Your task to perform on an android device: set the timer Image 0: 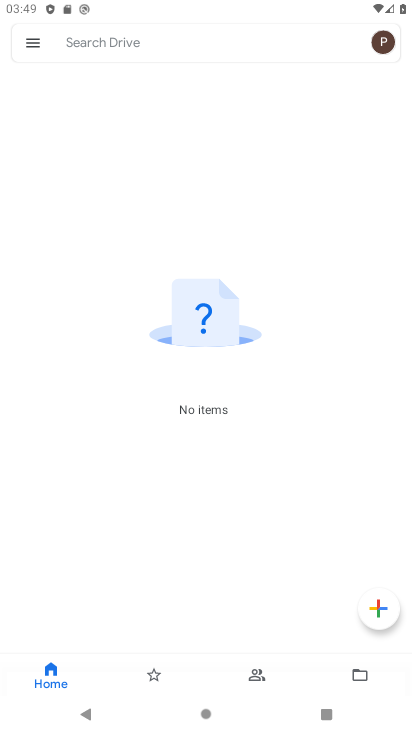
Step 0: press home button
Your task to perform on an android device: set the timer Image 1: 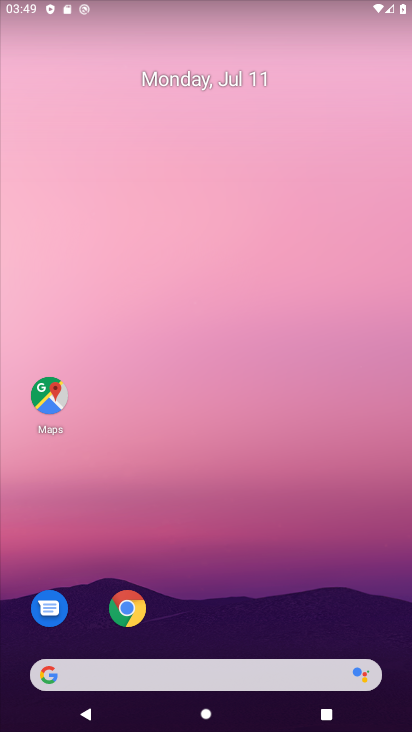
Step 1: drag from (162, 694) to (267, 63)
Your task to perform on an android device: set the timer Image 2: 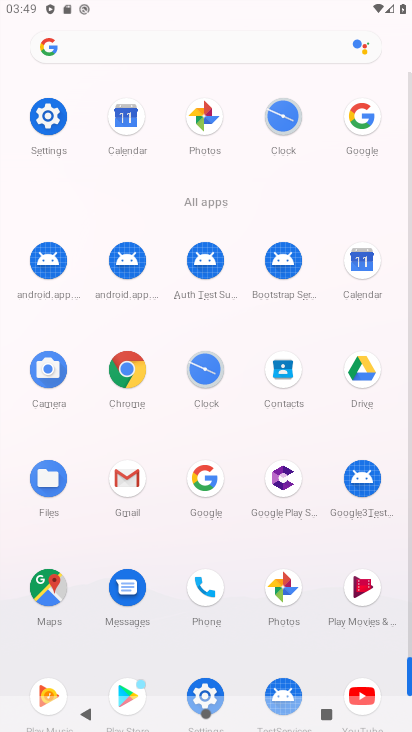
Step 2: click (286, 125)
Your task to perform on an android device: set the timer Image 3: 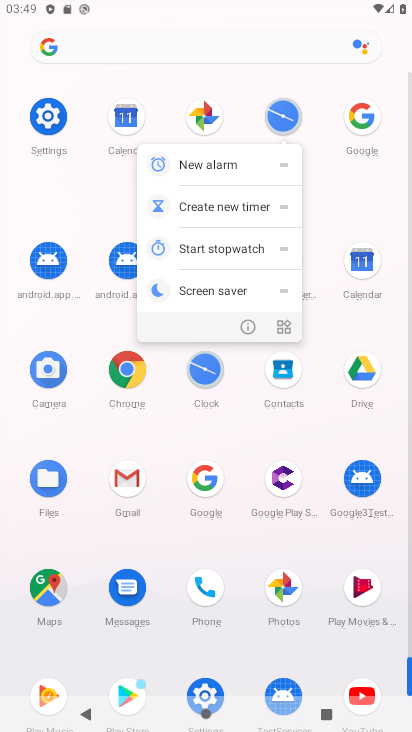
Step 3: click (283, 129)
Your task to perform on an android device: set the timer Image 4: 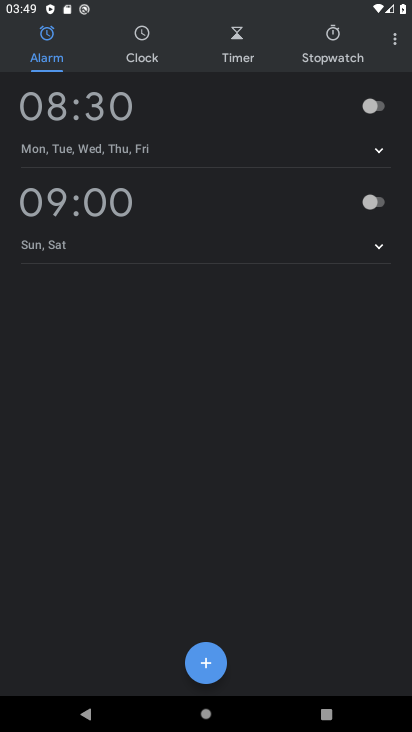
Step 4: click (234, 45)
Your task to perform on an android device: set the timer Image 5: 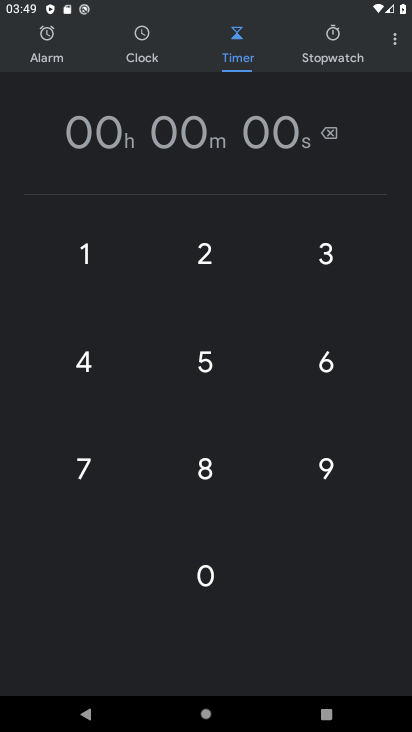
Step 5: click (197, 264)
Your task to perform on an android device: set the timer Image 6: 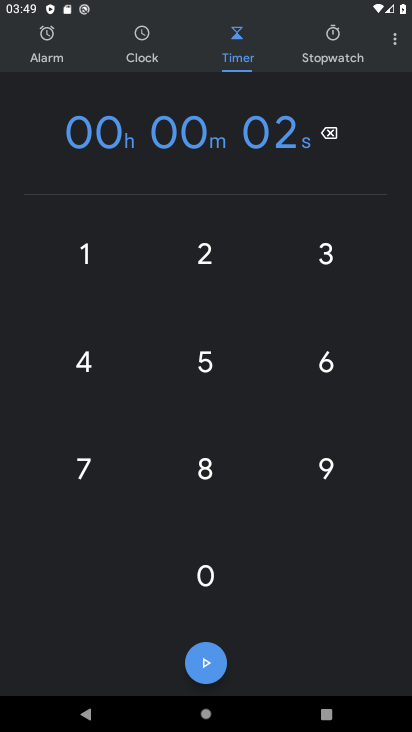
Step 6: click (208, 359)
Your task to perform on an android device: set the timer Image 7: 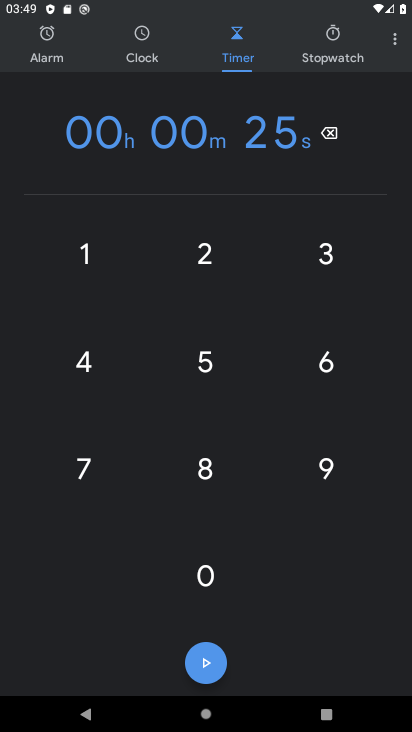
Step 7: click (325, 255)
Your task to perform on an android device: set the timer Image 8: 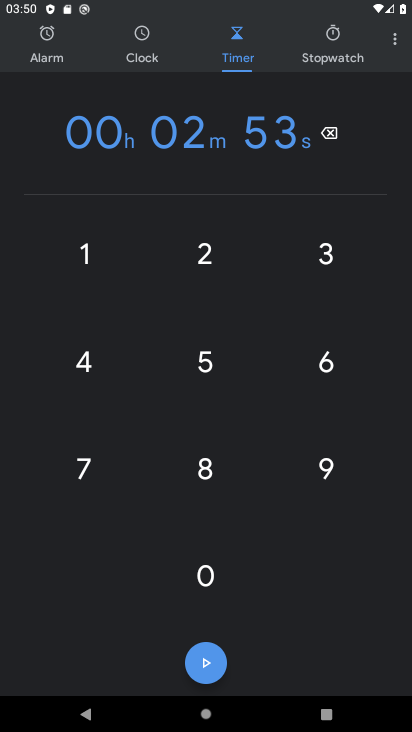
Step 8: task complete